Your task to perform on an android device: open a bookmark in the chrome app Image 0: 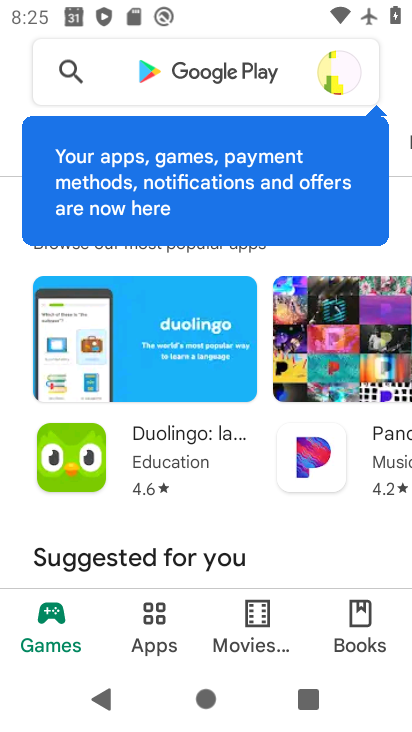
Step 0: press home button
Your task to perform on an android device: open a bookmark in the chrome app Image 1: 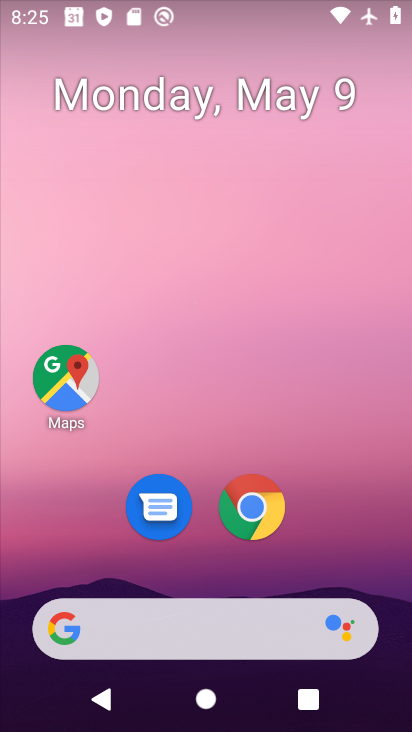
Step 1: click (249, 520)
Your task to perform on an android device: open a bookmark in the chrome app Image 2: 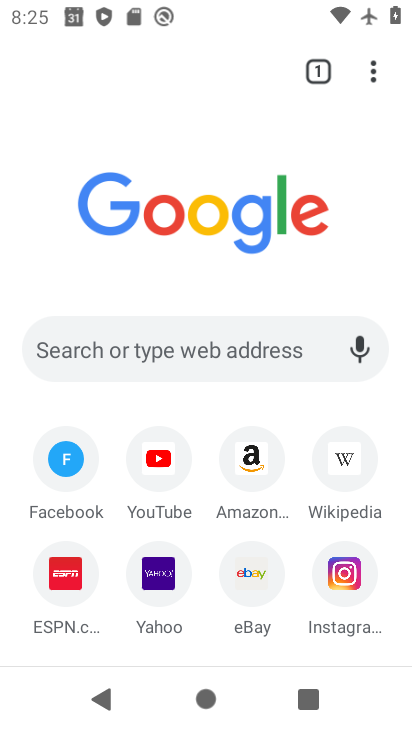
Step 2: click (374, 71)
Your task to perform on an android device: open a bookmark in the chrome app Image 3: 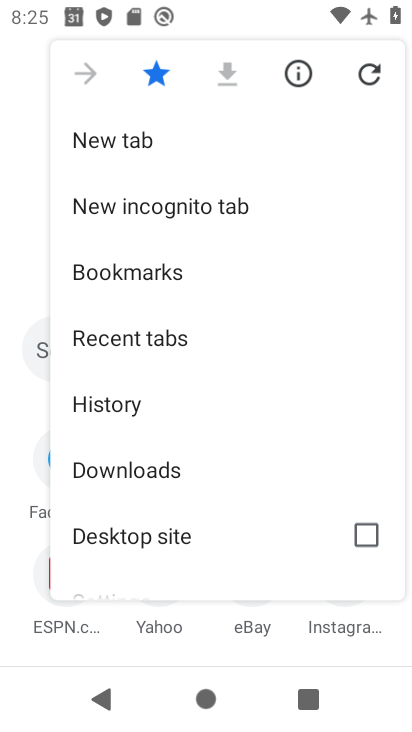
Step 3: click (91, 271)
Your task to perform on an android device: open a bookmark in the chrome app Image 4: 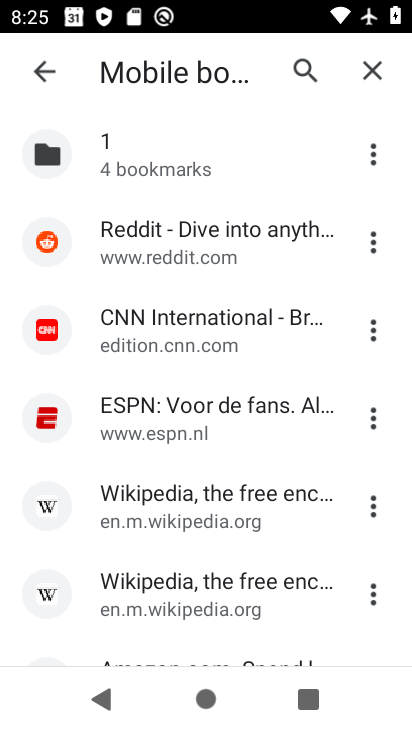
Step 4: task complete